Your task to perform on an android device: What's the weather? Image 0: 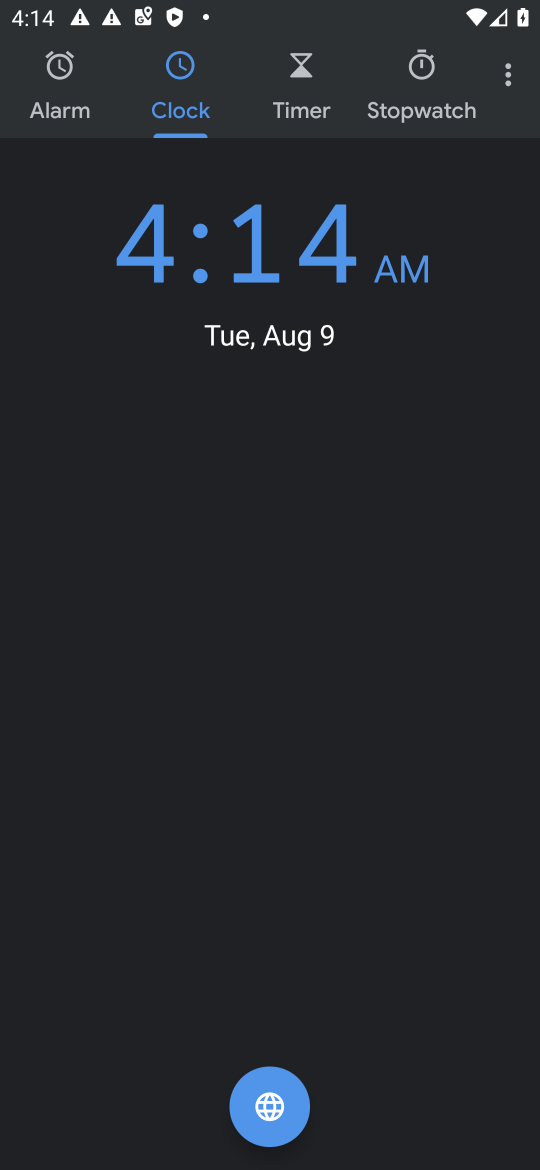
Step 0: press home button
Your task to perform on an android device: What's the weather? Image 1: 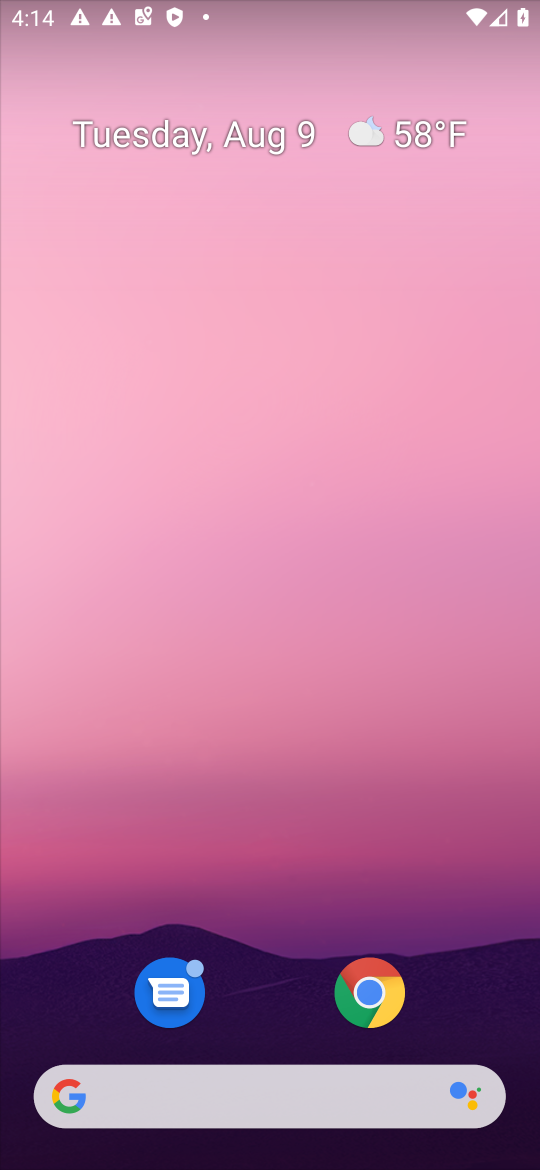
Step 1: drag from (360, 916) to (314, 10)
Your task to perform on an android device: What's the weather? Image 2: 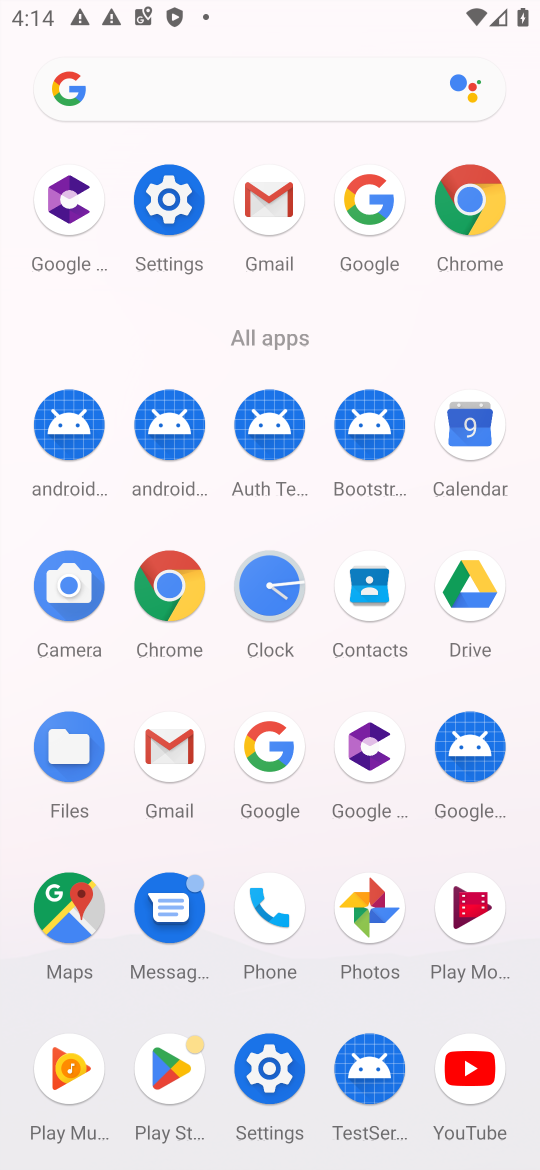
Step 2: click (155, 551)
Your task to perform on an android device: What's the weather? Image 3: 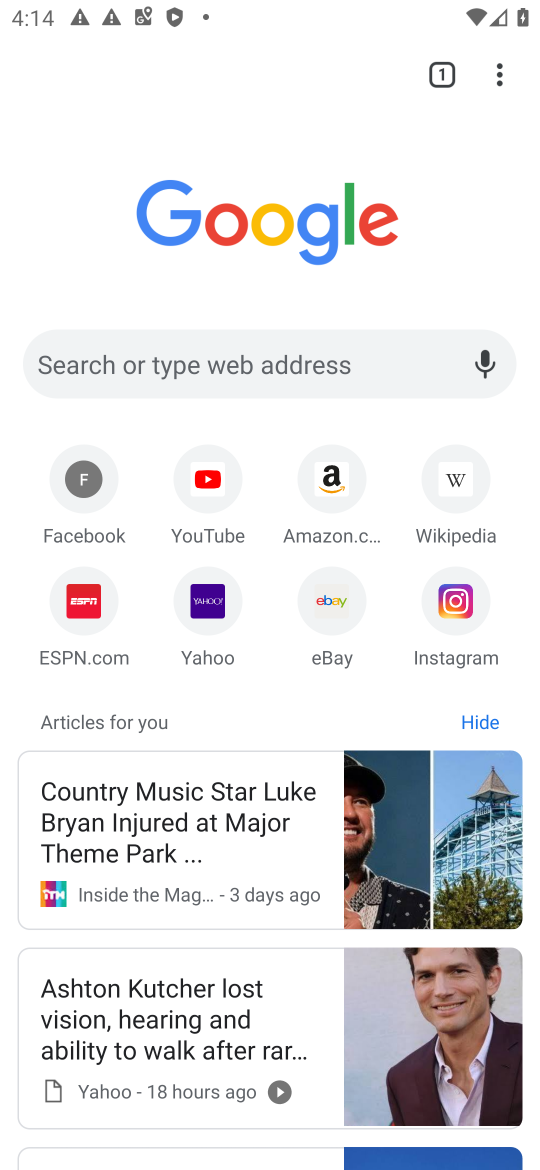
Step 3: click (185, 355)
Your task to perform on an android device: What's the weather? Image 4: 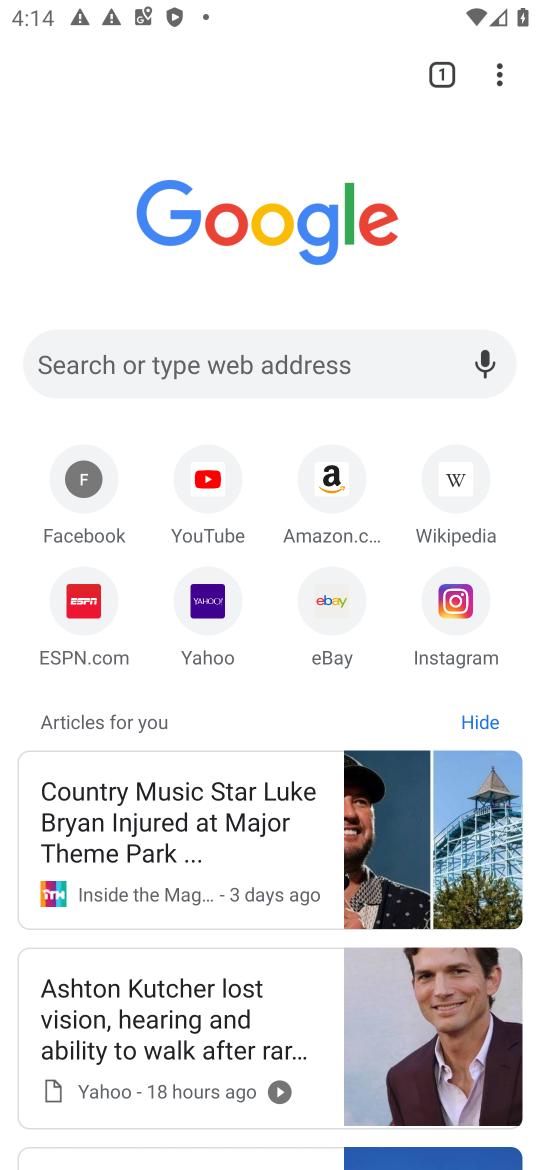
Step 4: click (185, 355)
Your task to perform on an android device: What's the weather? Image 5: 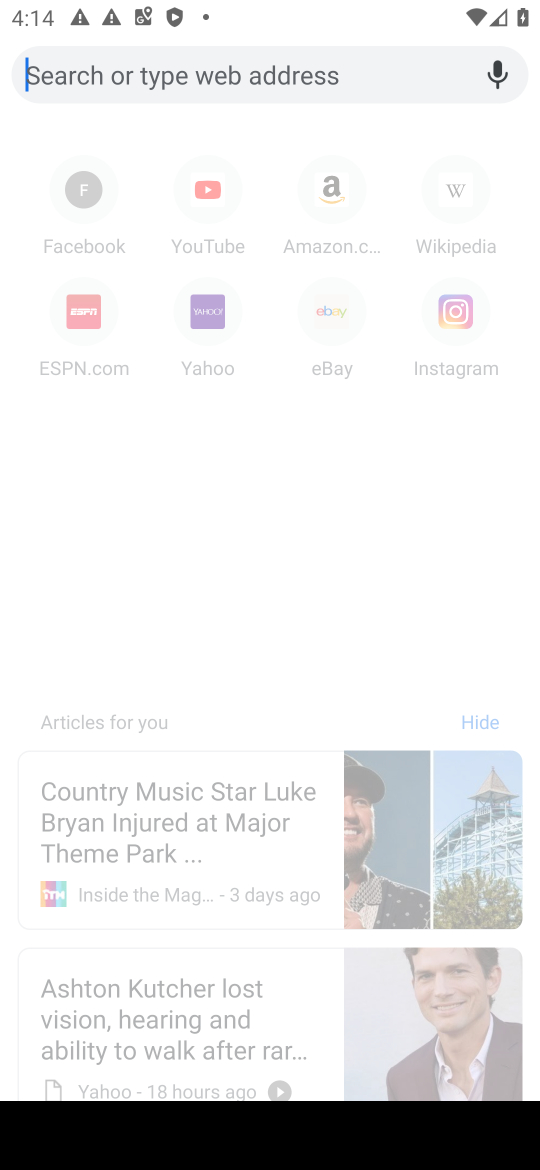
Step 5: type "whats the weather"
Your task to perform on an android device: What's the weather? Image 6: 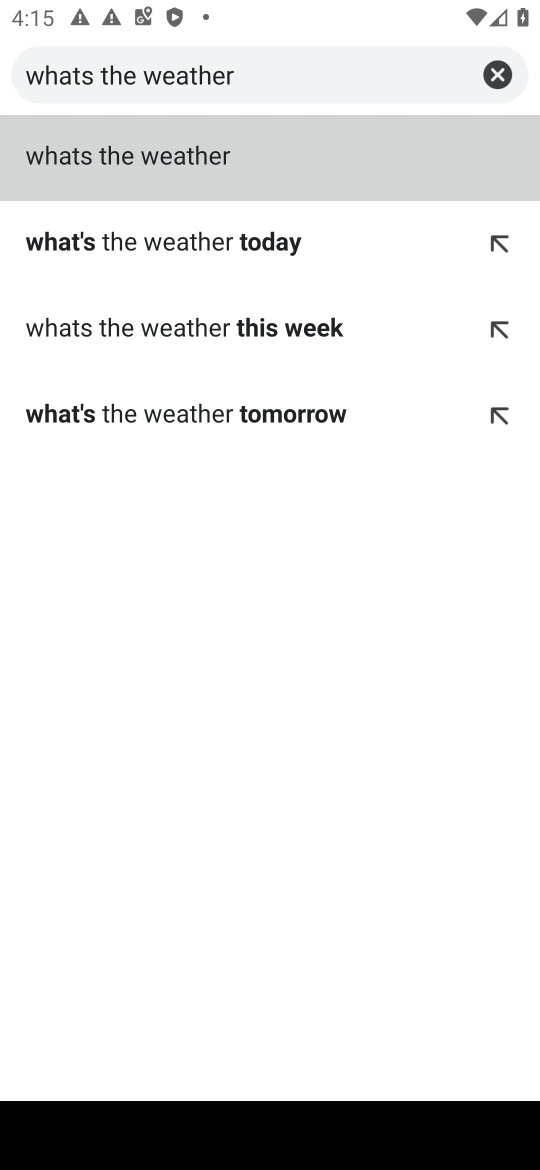
Step 6: click (336, 164)
Your task to perform on an android device: What's the weather? Image 7: 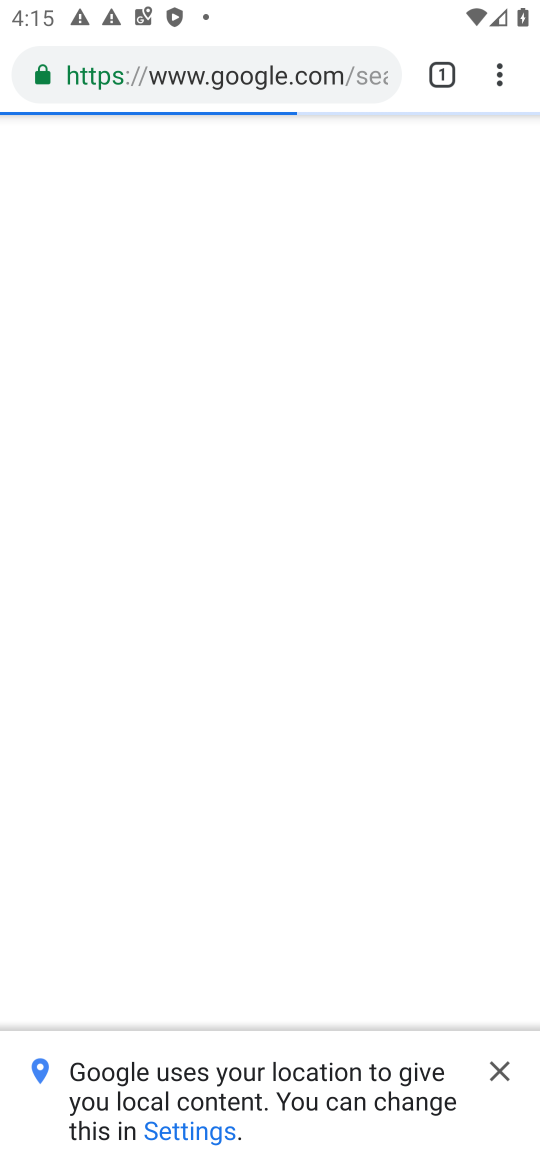
Step 7: task complete